Your task to perform on an android device: Open network settings Image 0: 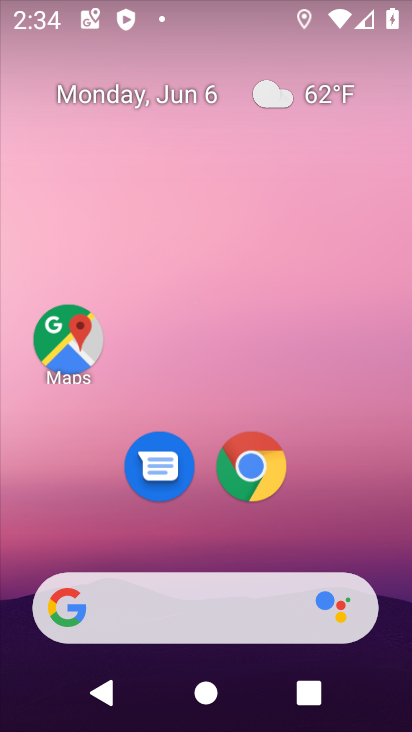
Step 0: drag from (232, 631) to (152, 99)
Your task to perform on an android device: Open network settings Image 1: 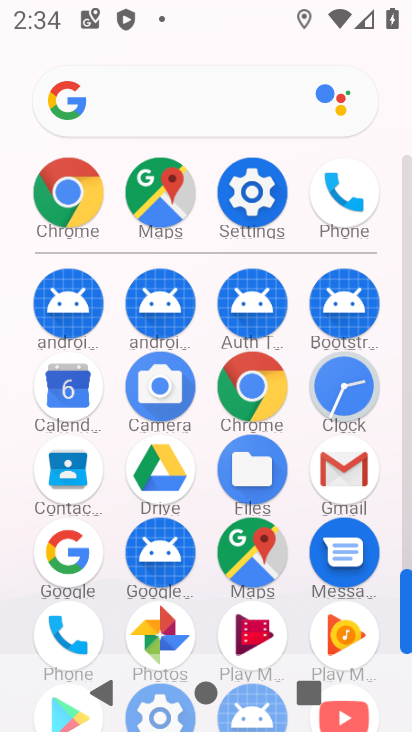
Step 1: click (263, 196)
Your task to perform on an android device: Open network settings Image 2: 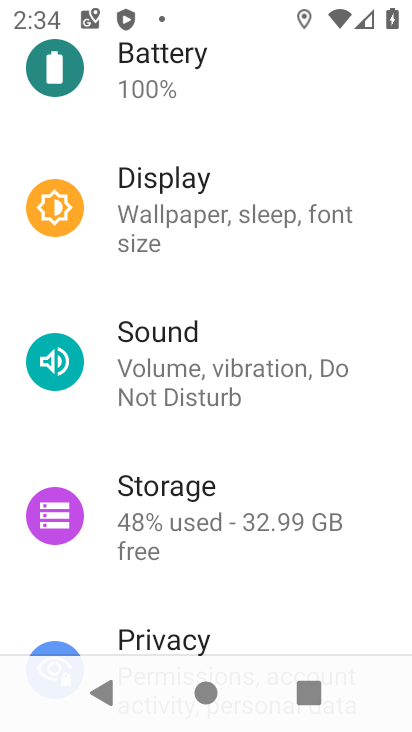
Step 2: drag from (208, 193) to (239, 508)
Your task to perform on an android device: Open network settings Image 3: 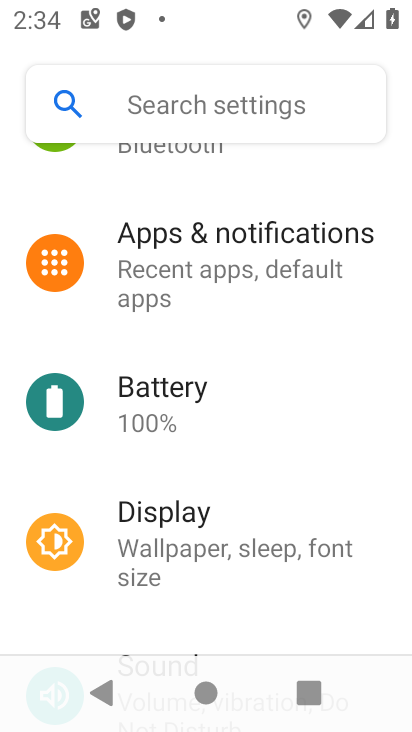
Step 3: drag from (212, 400) to (237, 554)
Your task to perform on an android device: Open network settings Image 4: 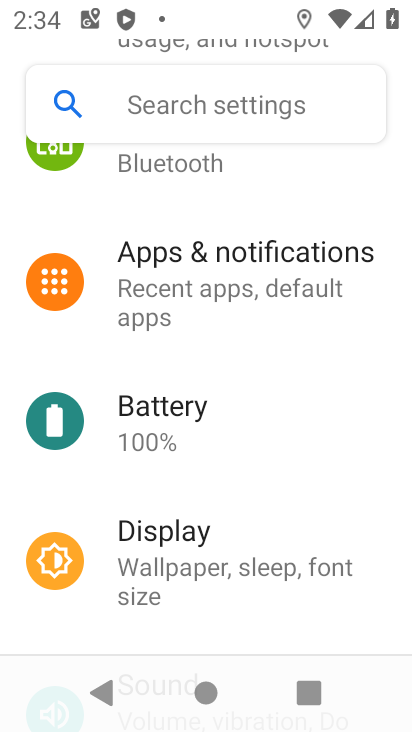
Step 4: drag from (141, 244) to (165, 570)
Your task to perform on an android device: Open network settings Image 5: 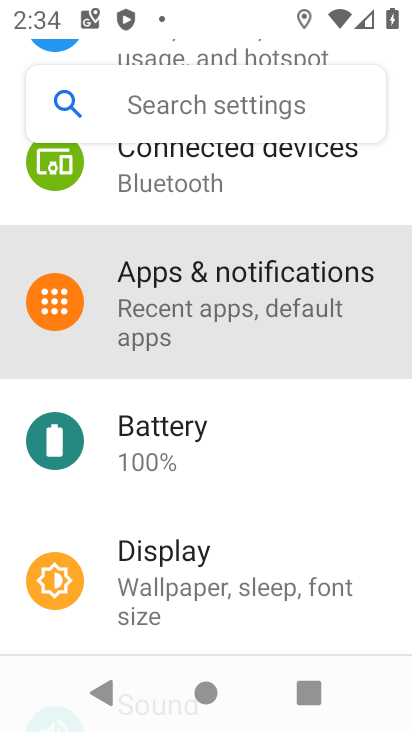
Step 5: drag from (142, 251) to (225, 615)
Your task to perform on an android device: Open network settings Image 6: 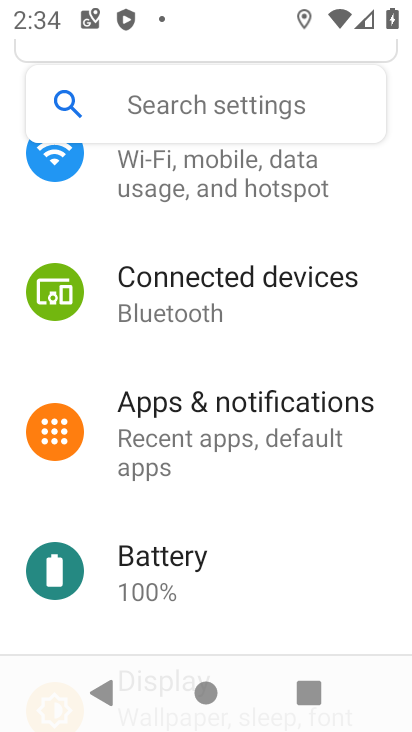
Step 6: drag from (226, 531) to (249, 639)
Your task to perform on an android device: Open network settings Image 7: 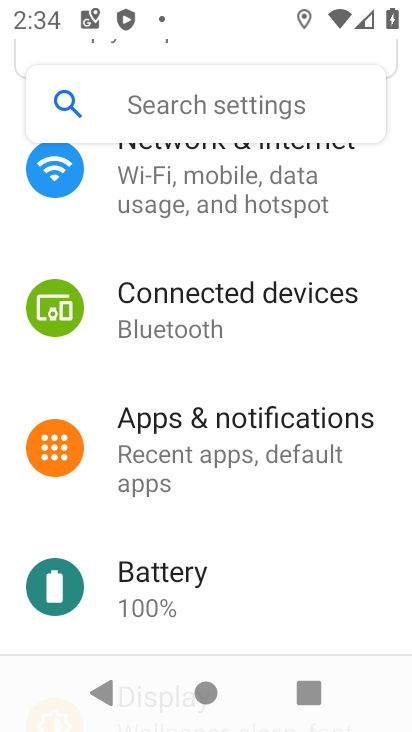
Step 7: drag from (204, 245) to (265, 637)
Your task to perform on an android device: Open network settings Image 8: 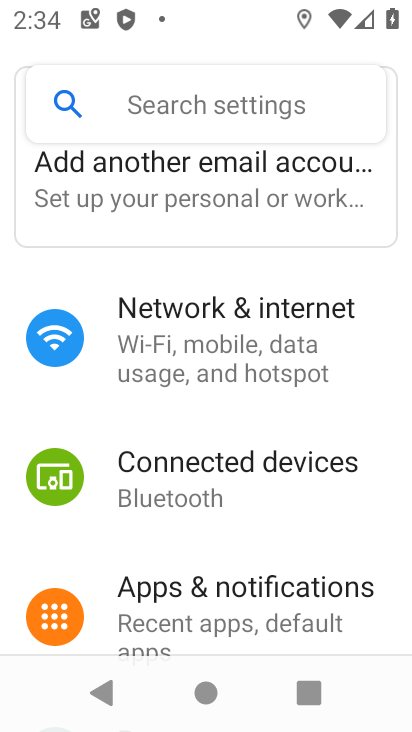
Step 8: drag from (175, 337) to (220, 611)
Your task to perform on an android device: Open network settings Image 9: 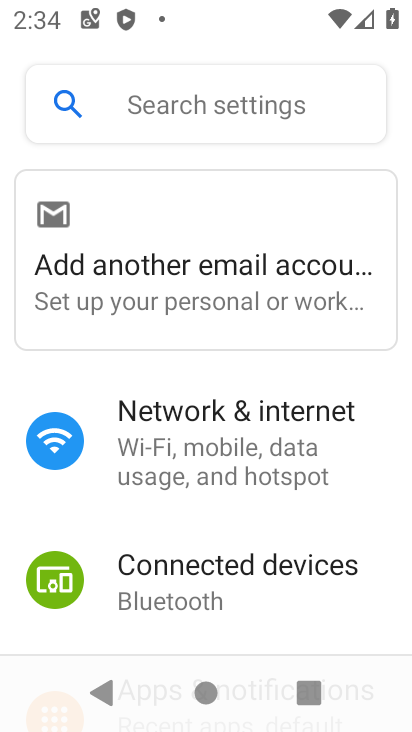
Step 9: drag from (231, 255) to (243, 589)
Your task to perform on an android device: Open network settings Image 10: 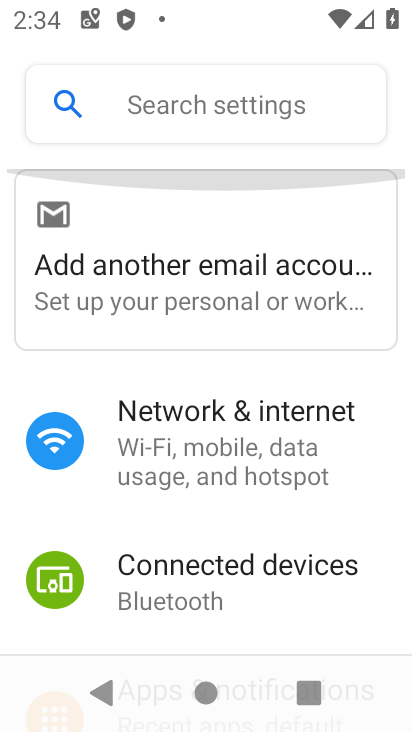
Step 10: drag from (231, 298) to (230, 664)
Your task to perform on an android device: Open network settings Image 11: 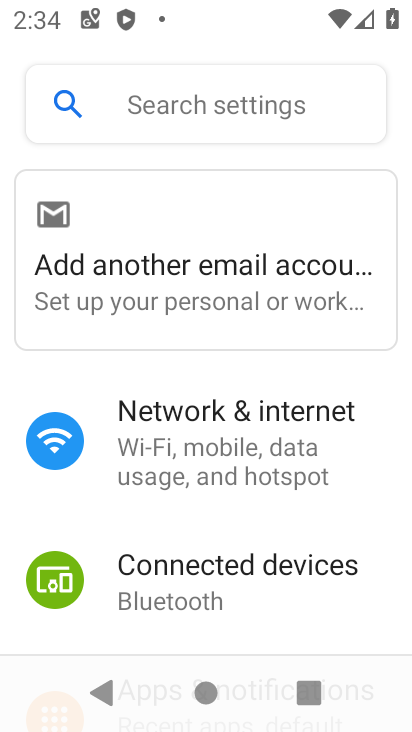
Step 11: click (199, 460)
Your task to perform on an android device: Open network settings Image 12: 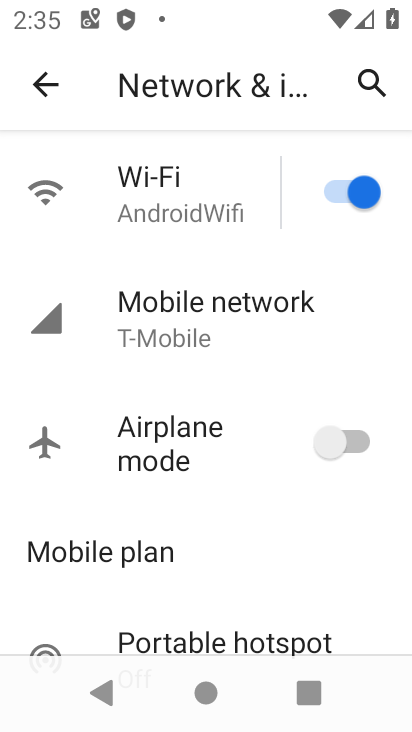
Step 12: task complete